Your task to perform on an android device: open app "Cash App" Image 0: 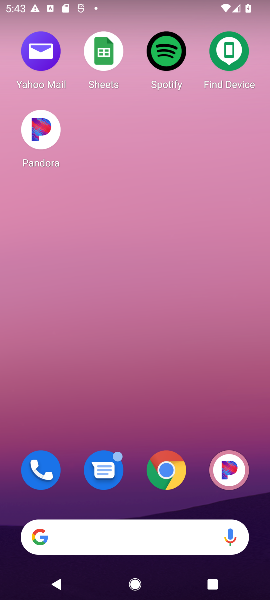
Step 0: drag from (108, 487) to (113, 142)
Your task to perform on an android device: open app "Cash App" Image 1: 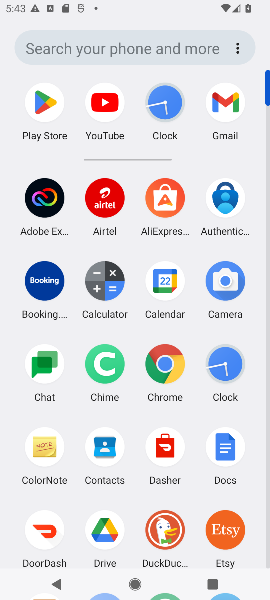
Step 1: click (35, 92)
Your task to perform on an android device: open app "Cash App" Image 2: 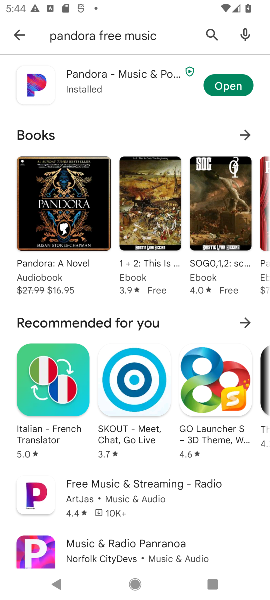
Step 2: click (33, 28)
Your task to perform on an android device: open app "Cash App" Image 3: 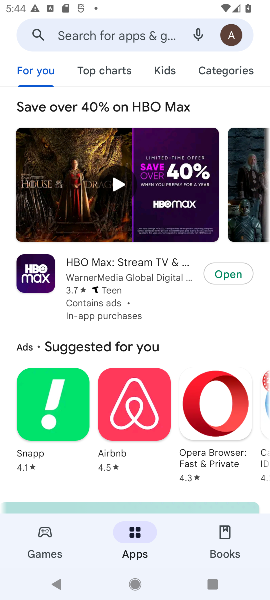
Step 3: click (95, 33)
Your task to perform on an android device: open app "Cash App" Image 4: 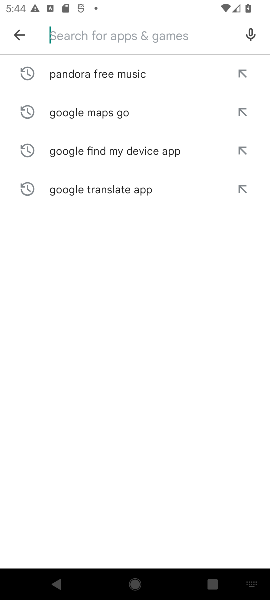
Step 4: type "cash app "
Your task to perform on an android device: open app "Cash App" Image 5: 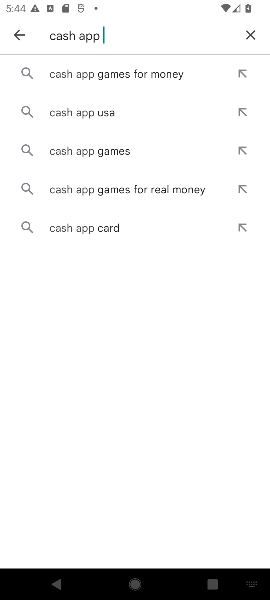
Step 5: click (71, 117)
Your task to perform on an android device: open app "Cash App" Image 6: 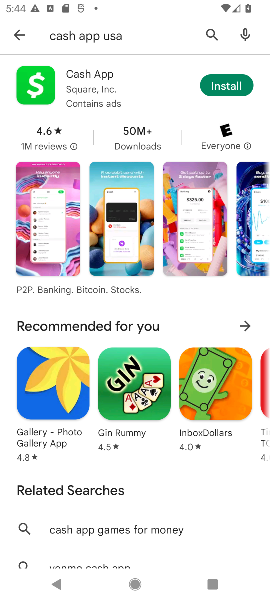
Step 6: click (227, 82)
Your task to perform on an android device: open app "Cash App" Image 7: 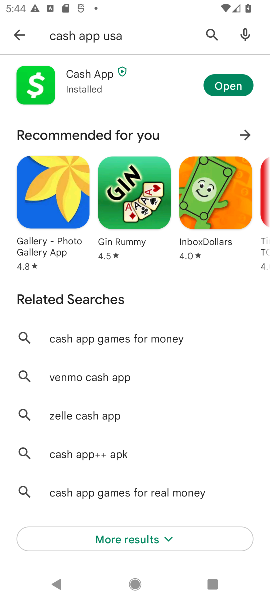
Step 7: task complete